Your task to perform on an android device: install app "Facebook" Image 0: 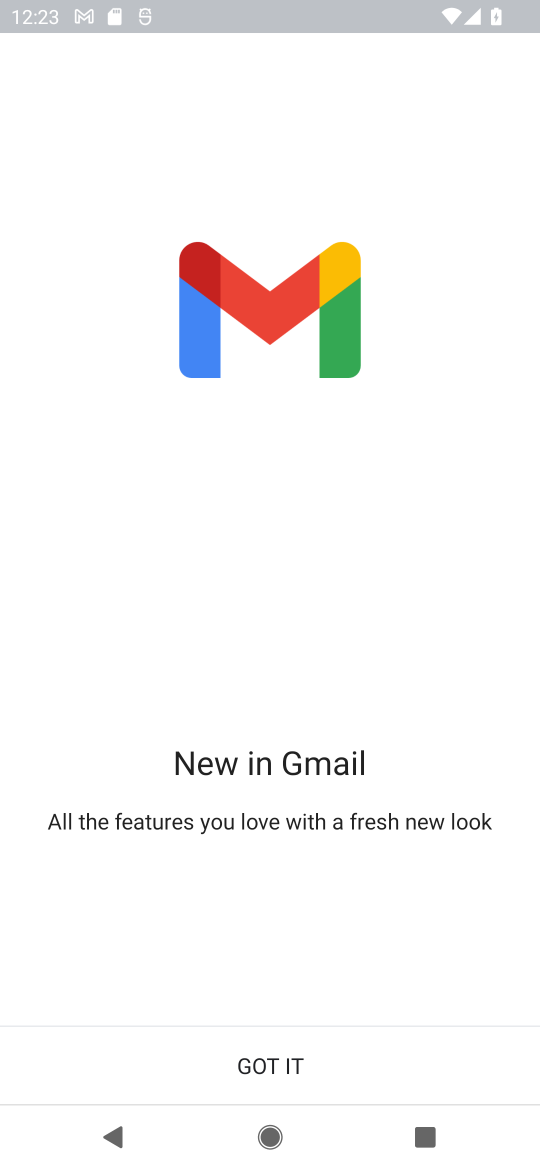
Step 0: press home button
Your task to perform on an android device: install app "Facebook" Image 1: 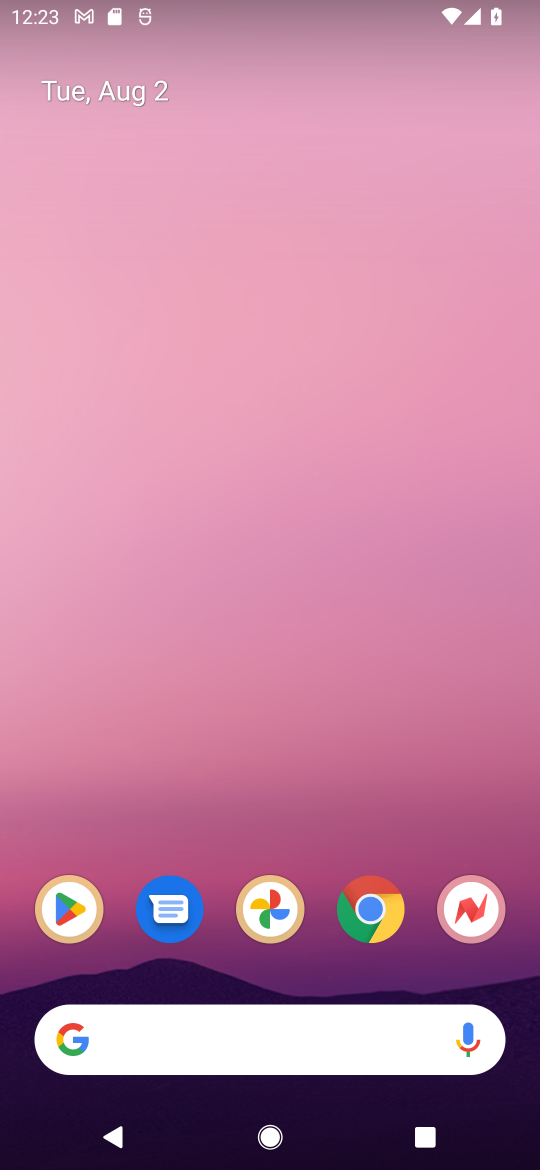
Step 1: click (39, 904)
Your task to perform on an android device: install app "Facebook" Image 2: 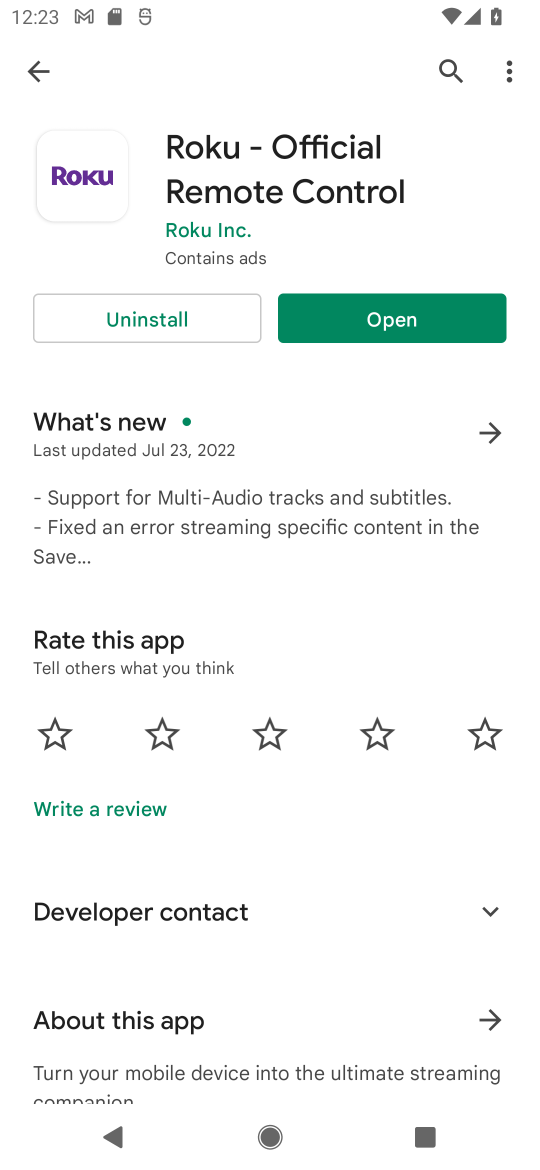
Step 2: click (446, 68)
Your task to perform on an android device: install app "Facebook" Image 3: 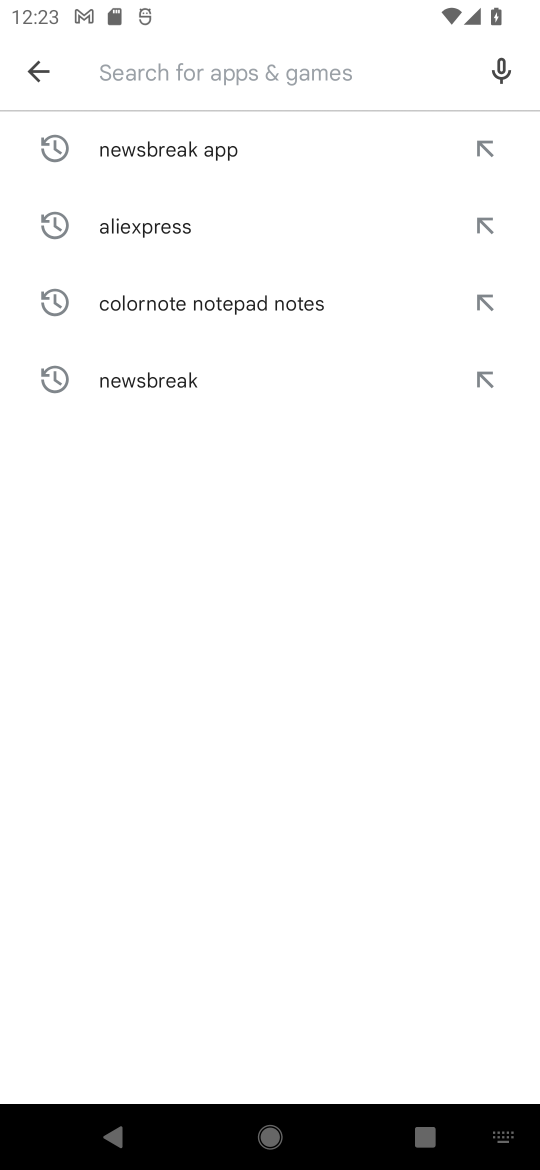
Step 3: type "Facebook"
Your task to perform on an android device: install app "Facebook" Image 4: 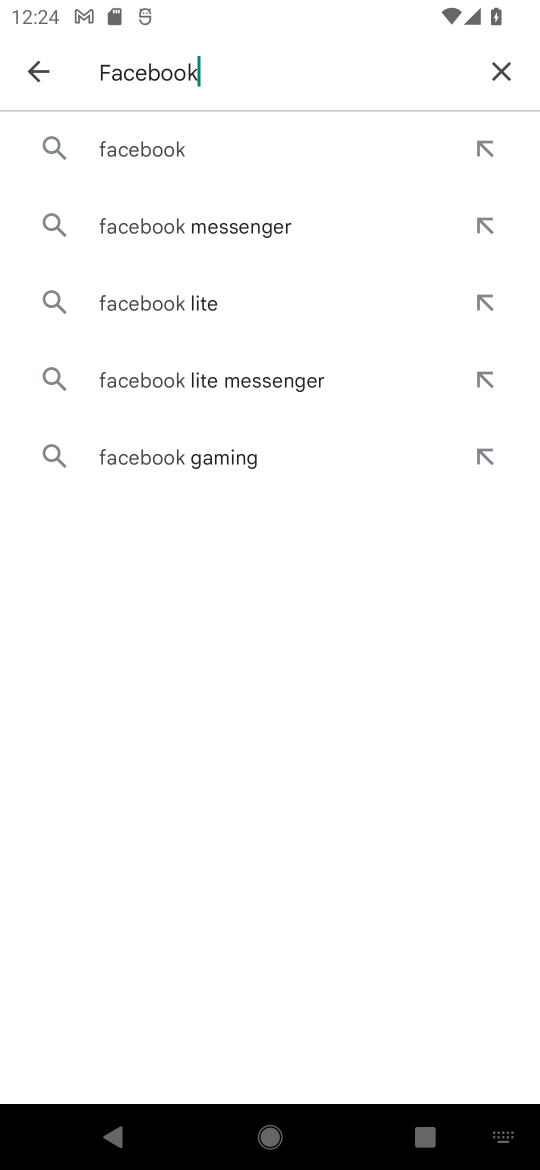
Step 4: click (143, 141)
Your task to perform on an android device: install app "Facebook" Image 5: 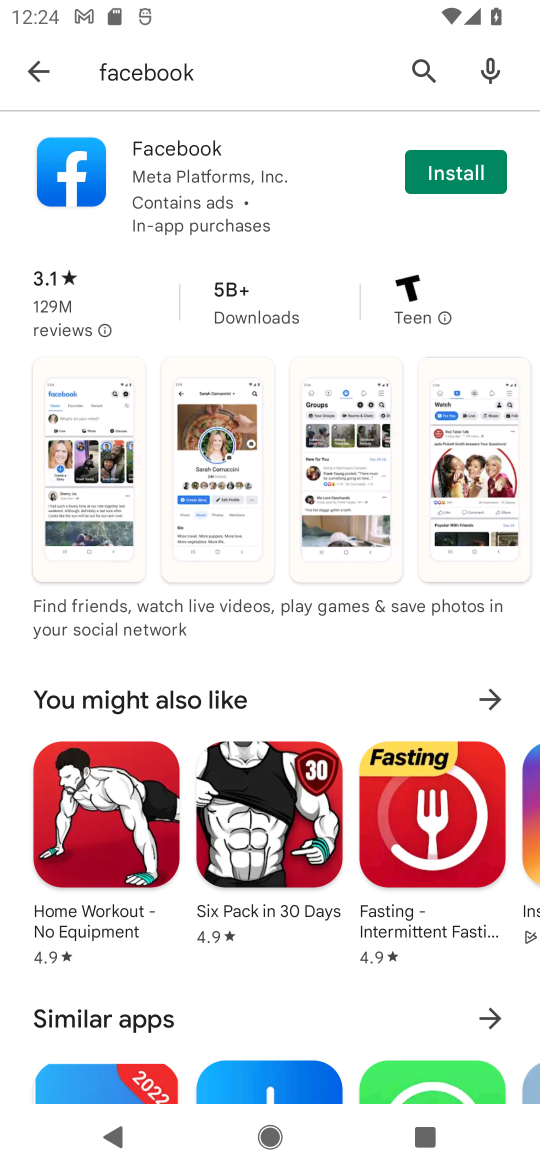
Step 5: click (479, 177)
Your task to perform on an android device: install app "Facebook" Image 6: 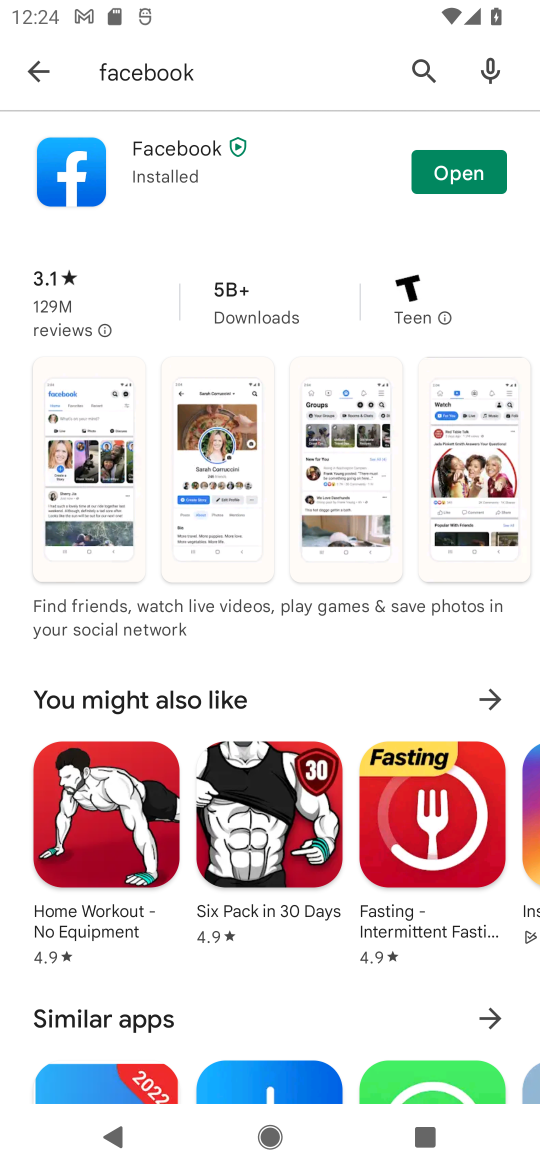
Step 6: task complete